Your task to perform on an android device: open app "ColorNote Notepad Notes" Image 0: 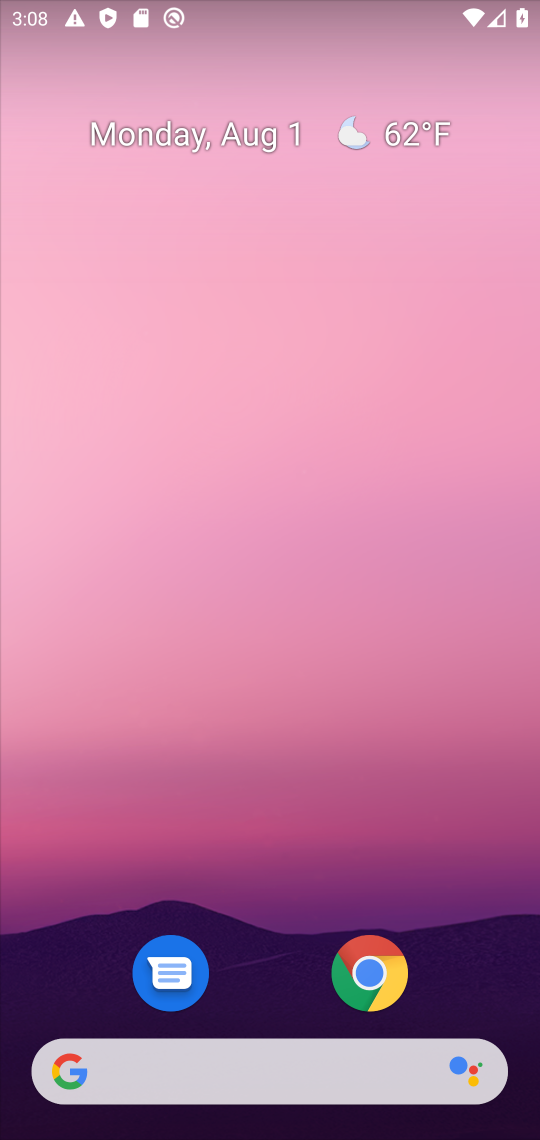
Step 0: drag from (262, 943) to (160, 434)
Your task to perform on an android device: open app "ColorNote Notepad Notes" Image 1: 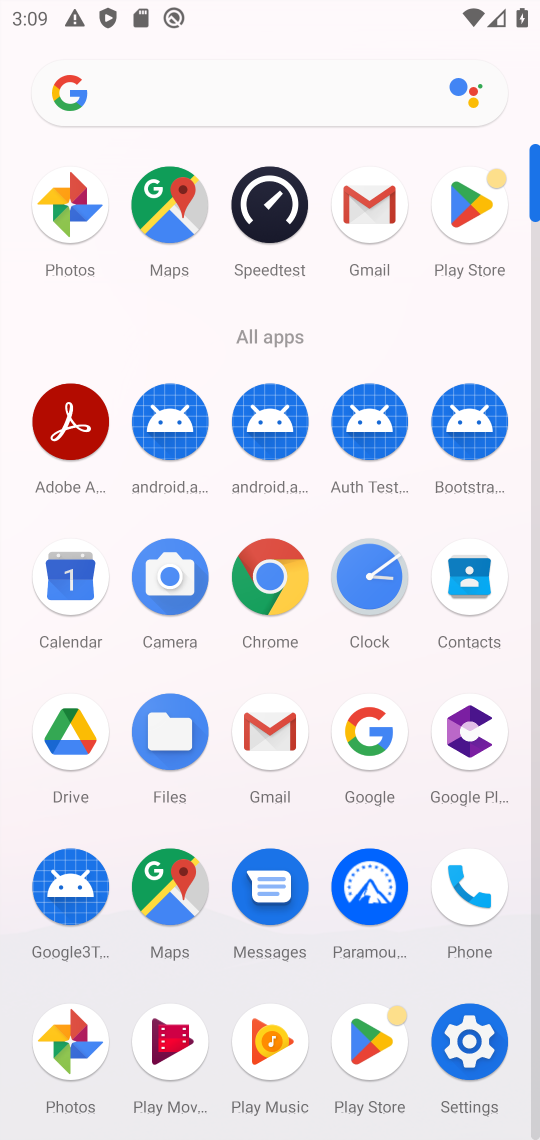
Step 1: click (466, 196)
Your task to perform on an android device: open app "ColorNote Notepad Notes" Image 2: 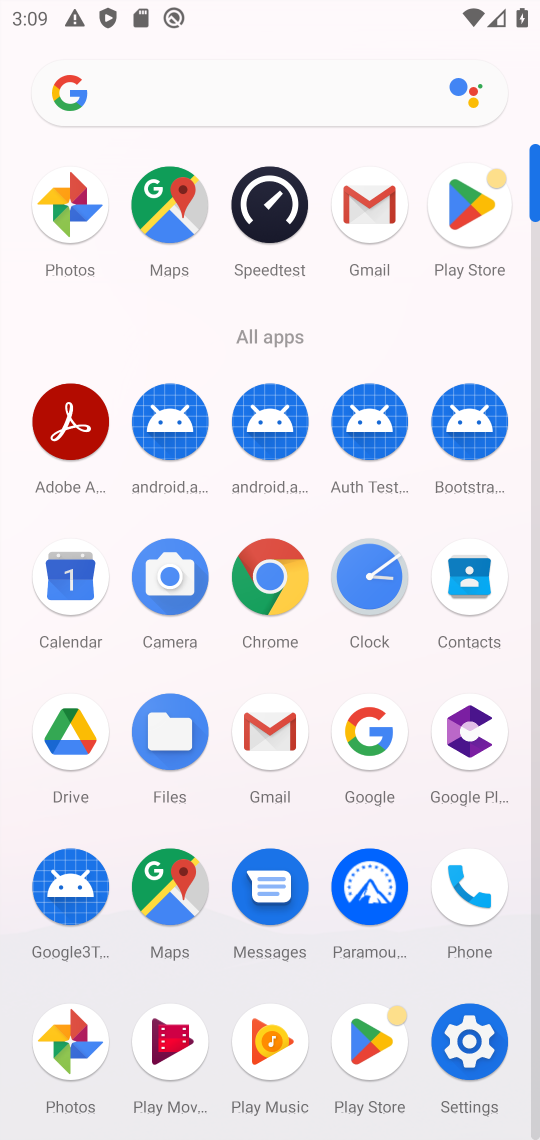
Step 2: click (471, 193)
Your task to perform on an android device: open app "ColorNote Notepad Notes" Image 3: 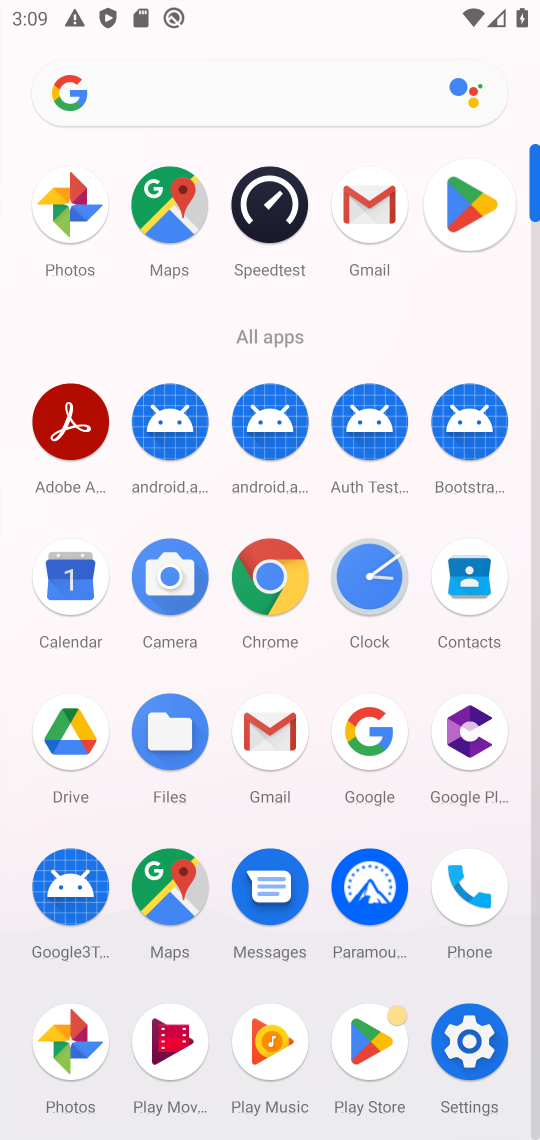
Step 3: click (479, 200)
Your task to perform on an android device: open app "ColorNote Notepad Notes" Image 4: 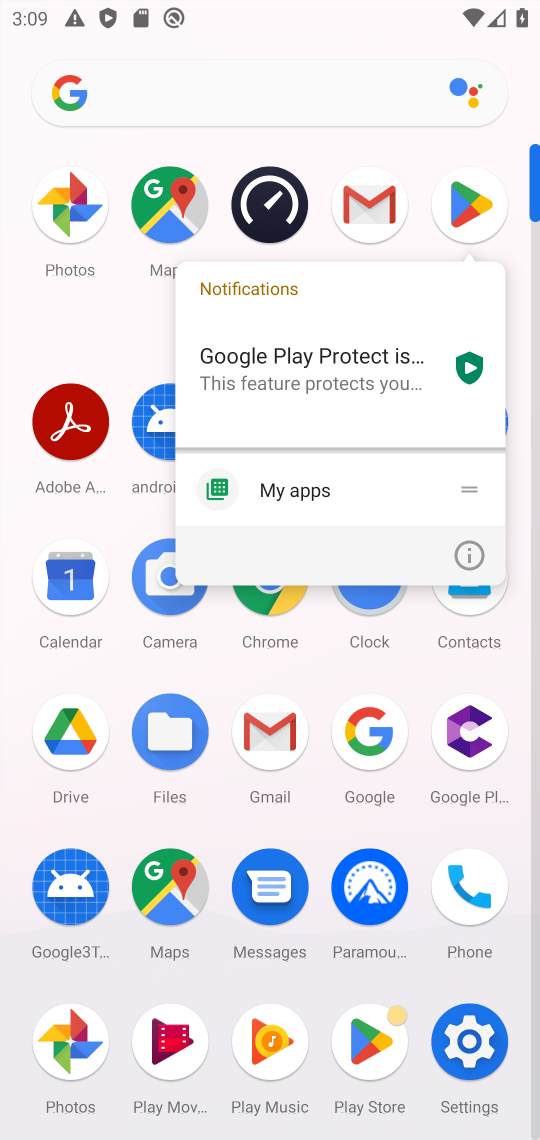
Step 4: click (477, 190)
Your task to perform on an android device: open app "ColorNote Notepad Notes" Image 5: 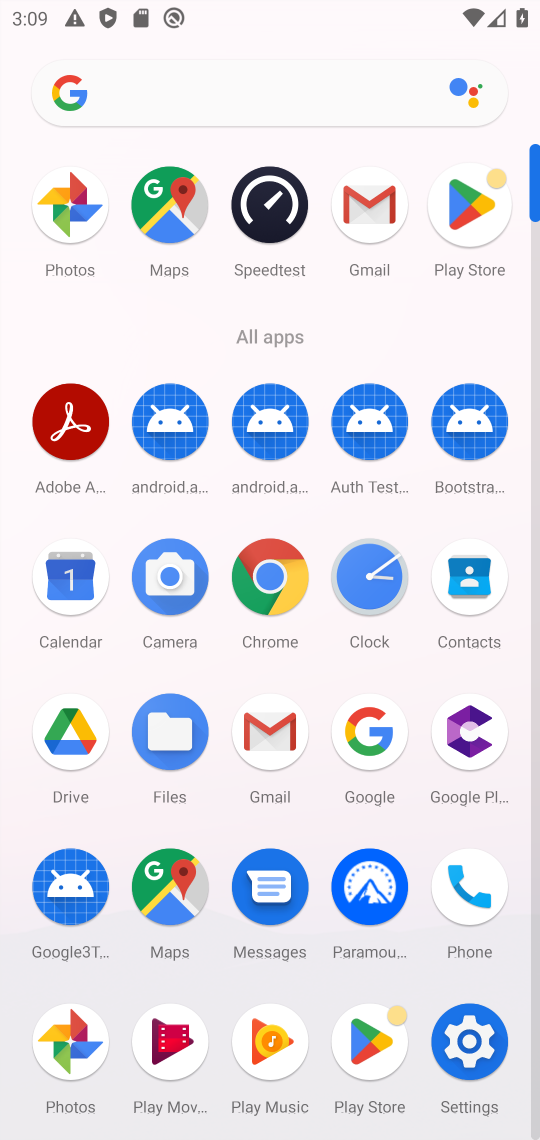
Step 5: click (475, 197)
Your task to perform on an android device: open app "ColorNote Notepad Notes" Image 6: 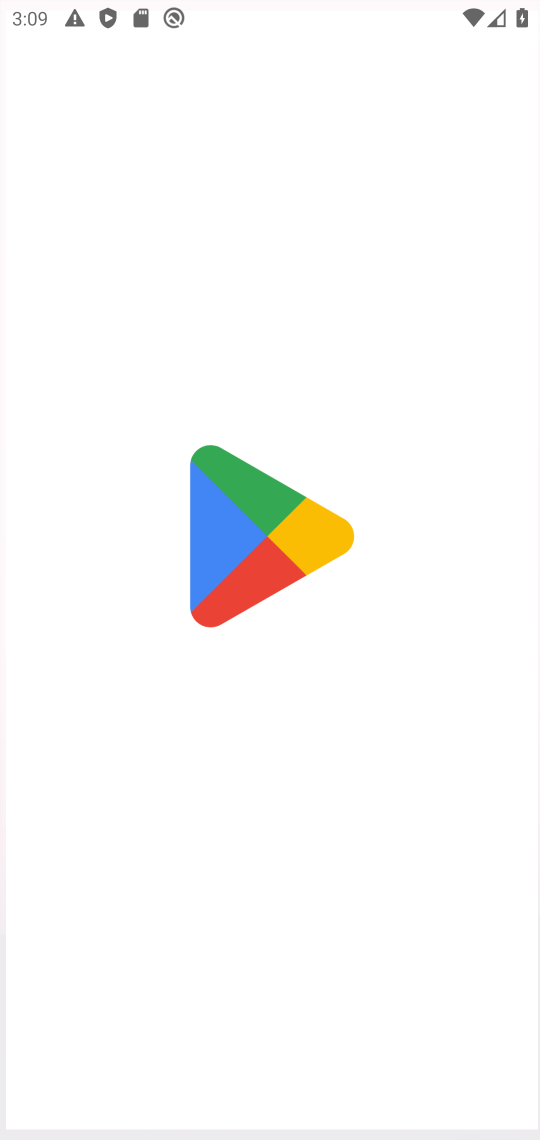
Step 6: click (470, 209)
Your task to perform on an android device: open app "ColorNote Notepad Notes" Image 7: 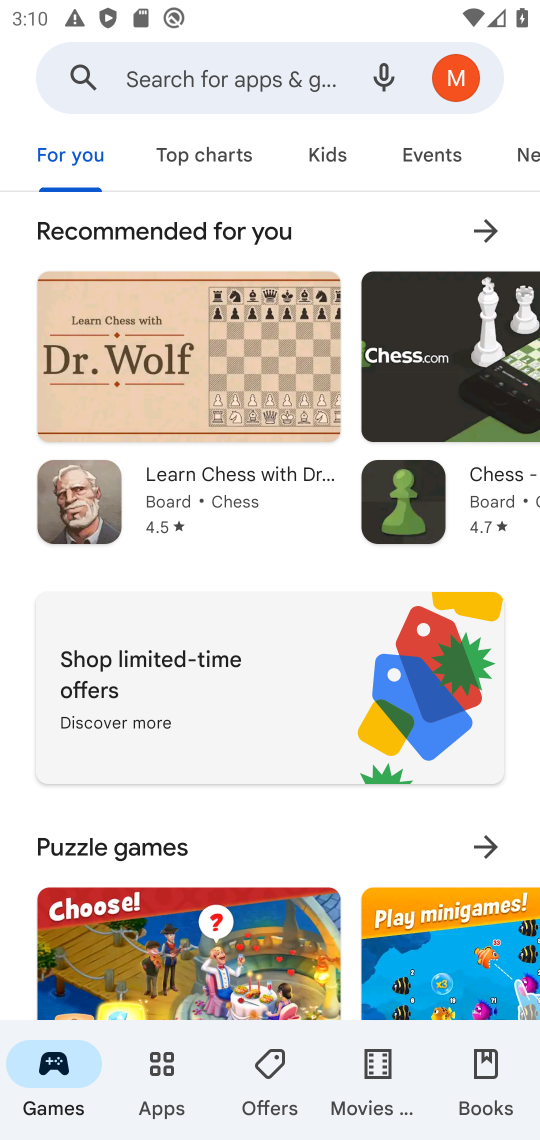
Step 7: click (159, 84)
Your task to perform on an android device: open app "ColorNote Notepad Notes" Image 8: 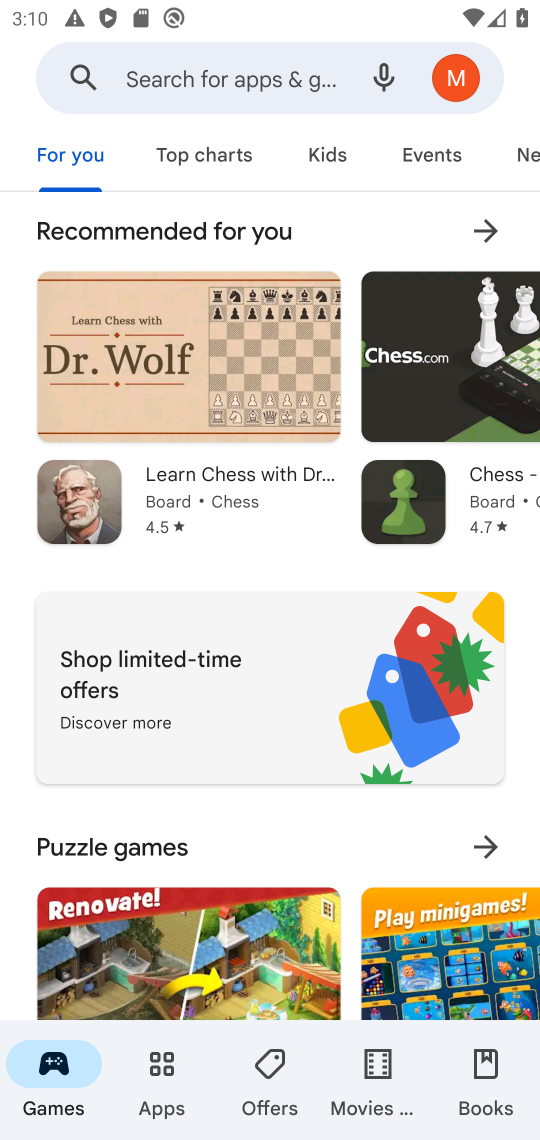
Step 8: click (161, 78)
Your task to perform on an android device: open app "ColorNote Notepad Notes" Image 9: 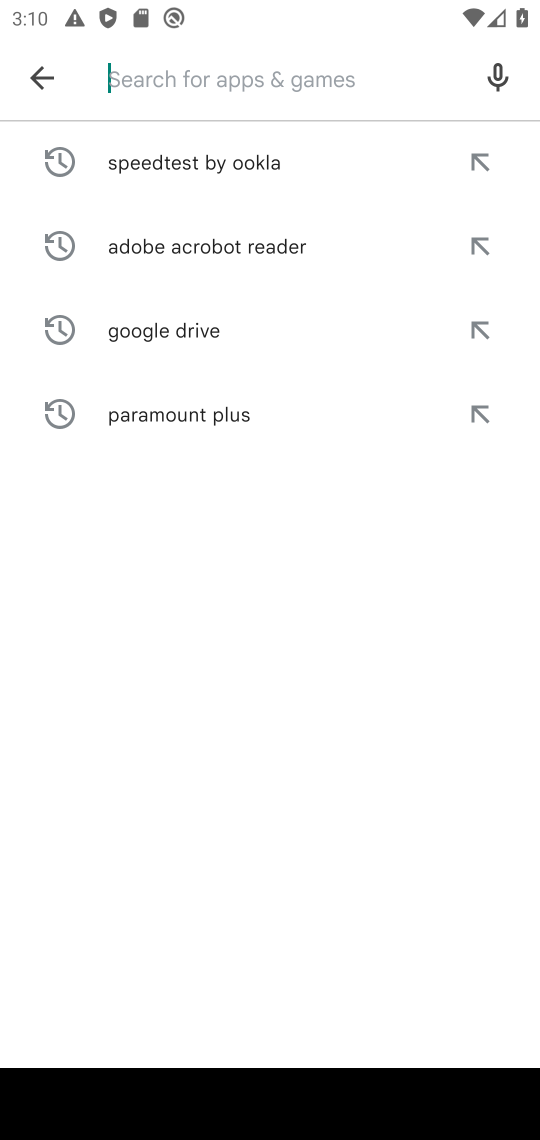
Step 9: type "colornote"
Your task to perform on an android device: open app "ColorNote Notepad Notes" Image 10: 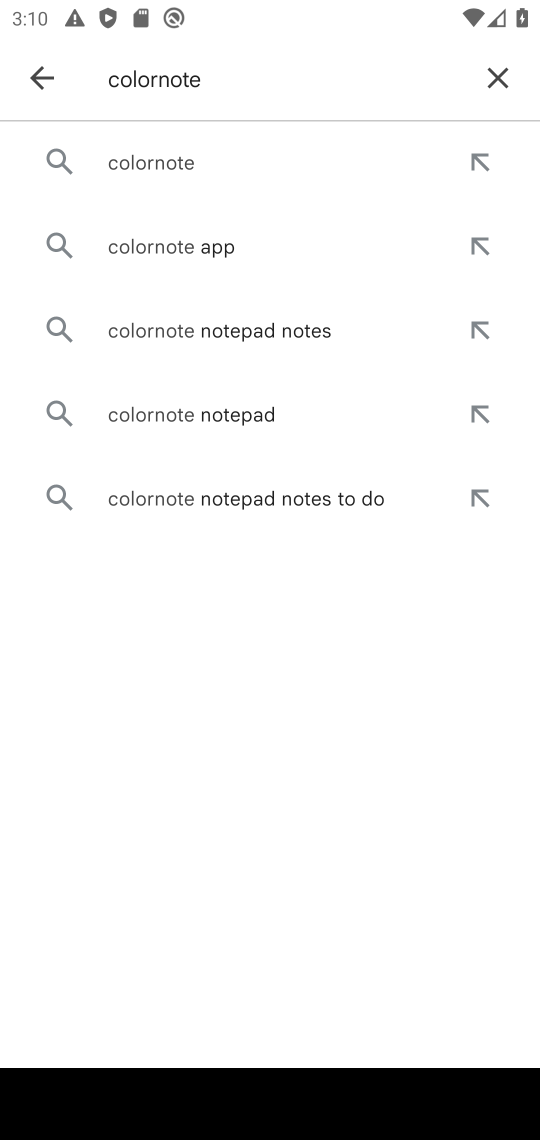
Step 10: click (131, 163)
Your task to perform on an android device: open app "ColorNote Notepad Notes" Image 11: 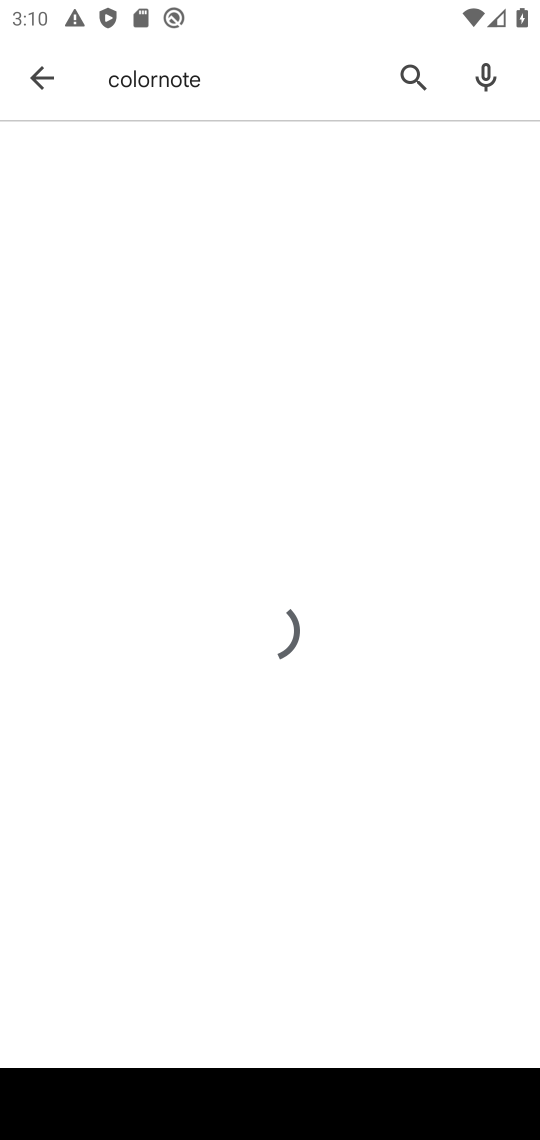
Step 11: click (132, 164)
Your task to perform on an android device: open app "ColorNote Notepad Notes" Image 12: 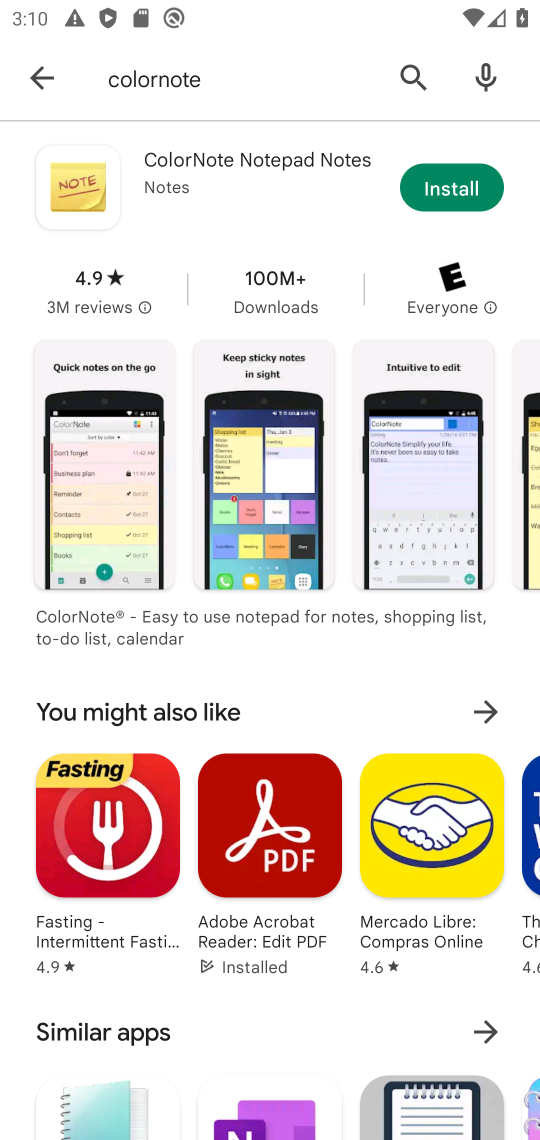
Step 12: click (443, 198)
Your task to perform on an android device: open app "ColorNote Notepad Notes" Image 13: 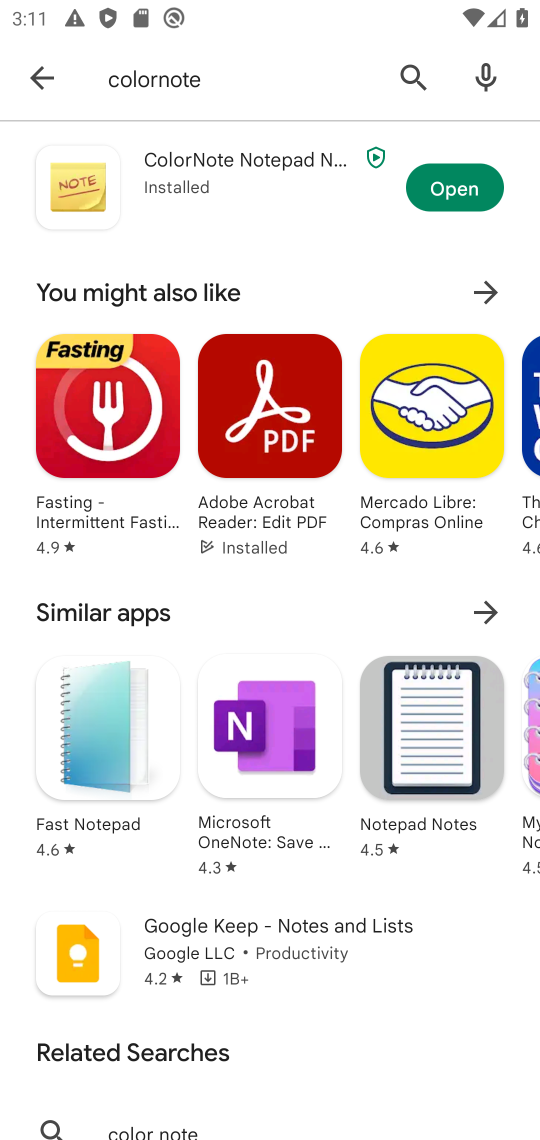
Step 13: click (440, 193)
Your task to perform on an android device: open app "ColorNote Notepad Notes" Image 14: 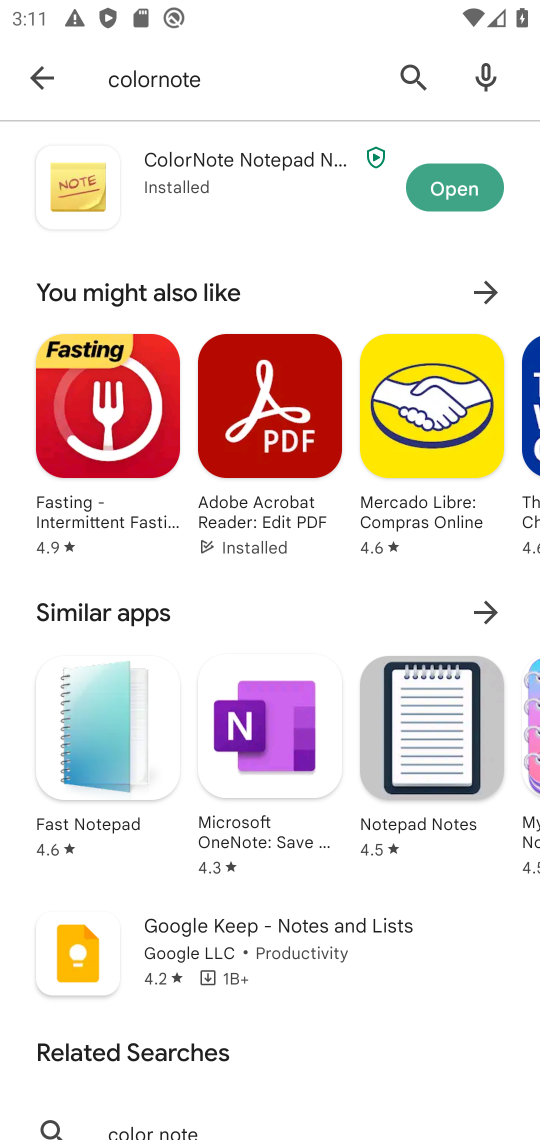
Step 14: click (442, 192)
Your task to perform on an android device: open app "ColorNote Notepad Notes" Image 15: 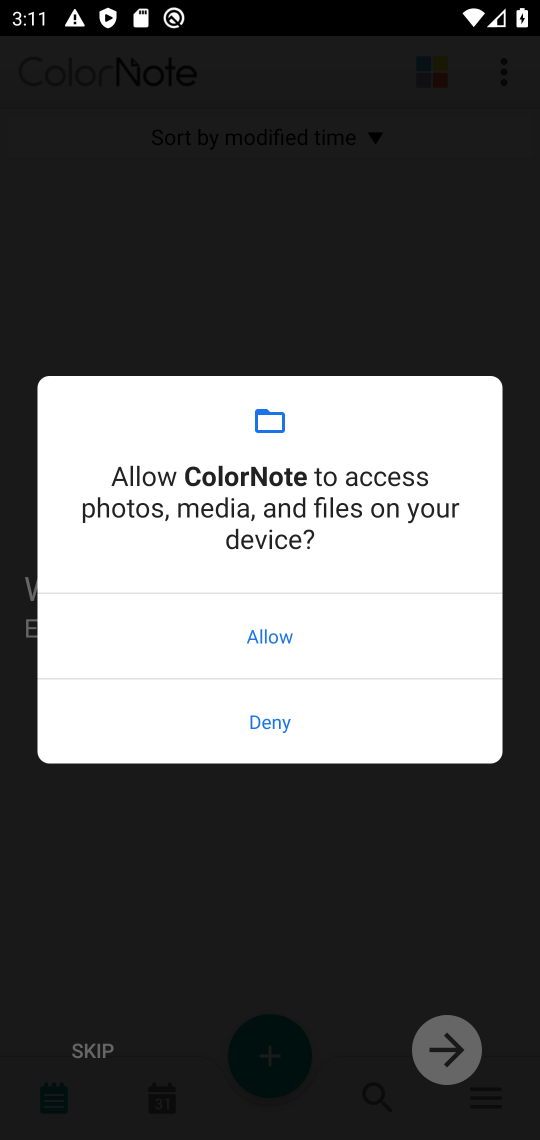
Step 15: click (255, 622)
Your task to perform on an android device: open app "ColorNote Notepad Notes" Image 16: 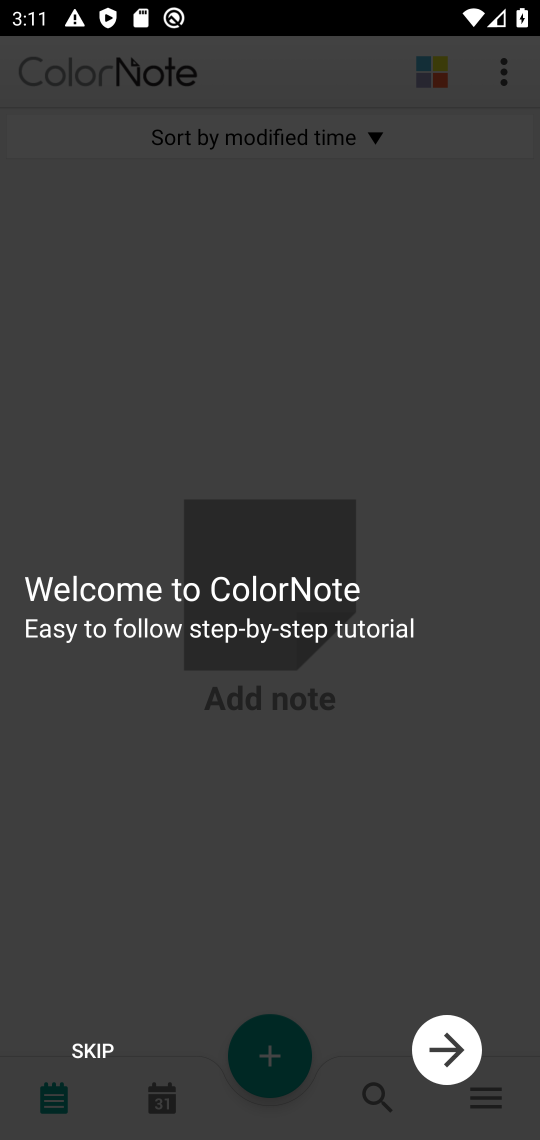
Step 16: click (70, 1023)
Your task to perform on an android device: open app "ColorNote Notepad Notes" Image 17: 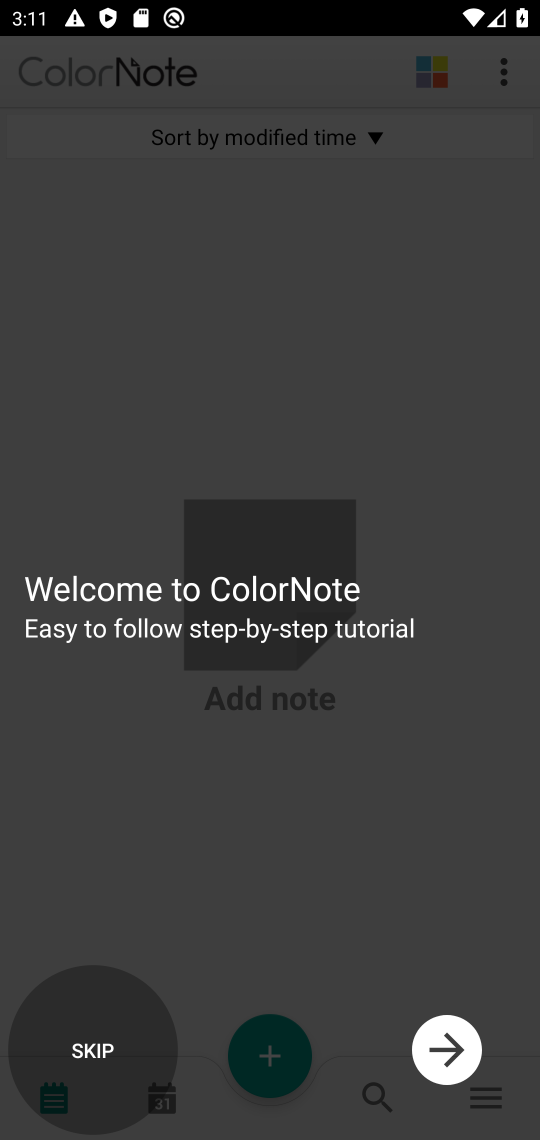
Step 17: click (70, 1023)
Your task to perform on an android device: open app "ColorNote Notepad Notes" Image 18: 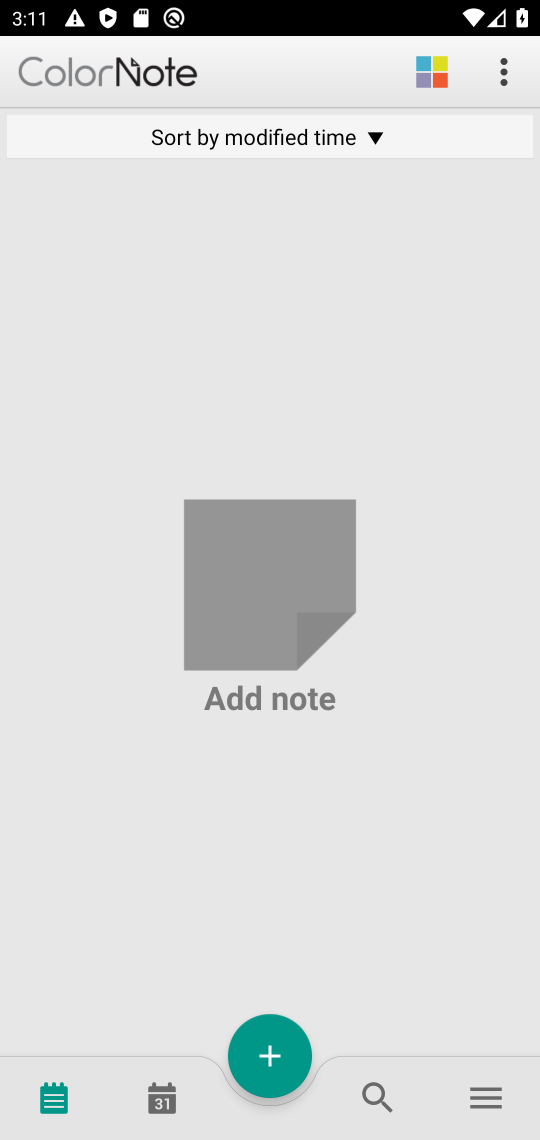
Step 18: task complete